Your task to perform on an android device: toggle priority inbox in the gmail app Image 0: 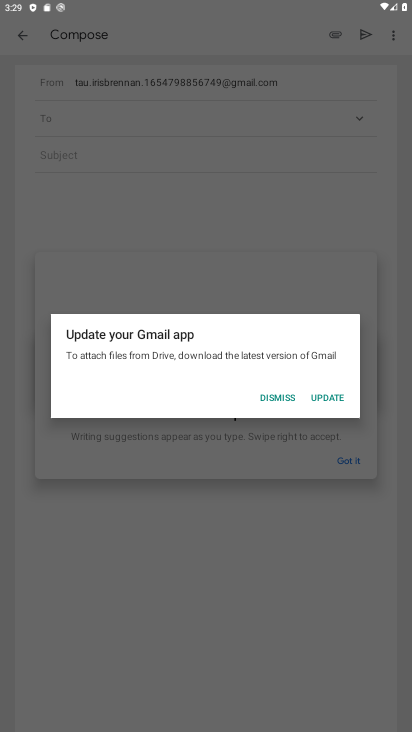
Step 0: press home button
Your task to perform on an android device: toggle priority inbox in the gmail app Image 1: 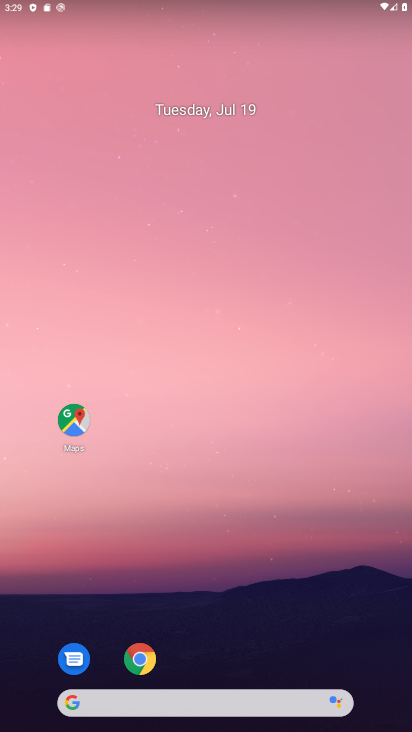
Step 1: drag from (274, 628) to (230, 15)
Your task to perform on an android device: toggle priority inbox in the gmail app Image 2: 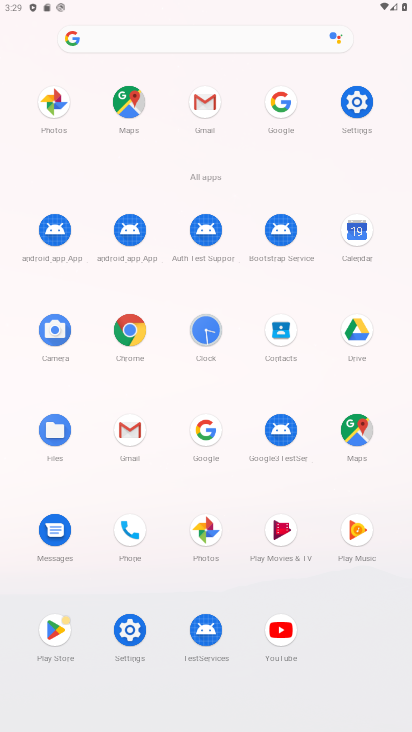
Step 2: click (222, 100)
Your task to perform on an android device: toggle priority inbox in the gmail app Image 3: 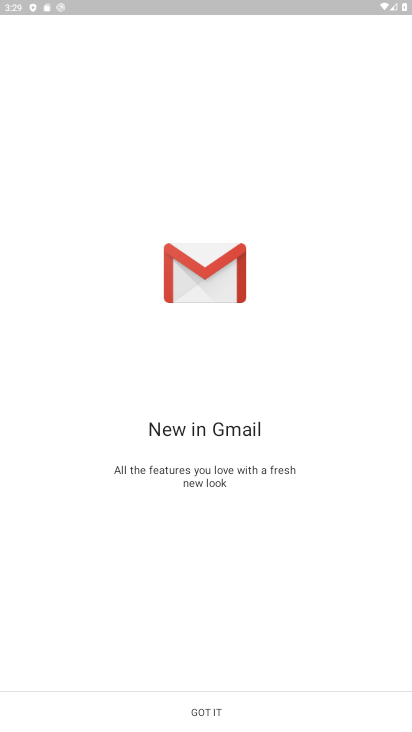
Step 3: click (193, 715)
Your task to perform on an android device: toggle priority inbox in the gmail app Image 4: 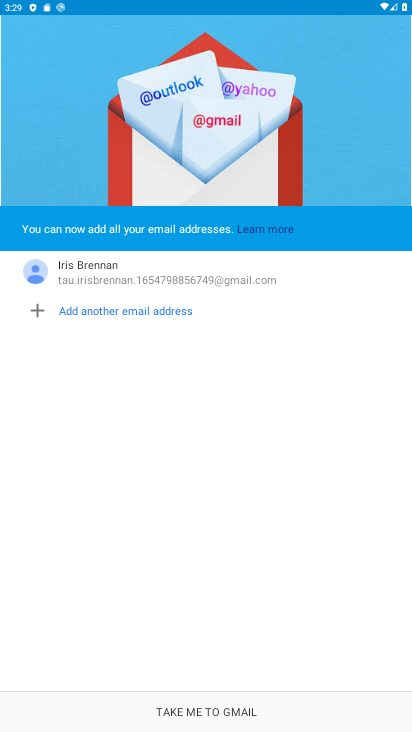
Step 4: click (193, 715)
Your task to perform on an android device: toggle priority inbox in the gmail app Image 5: 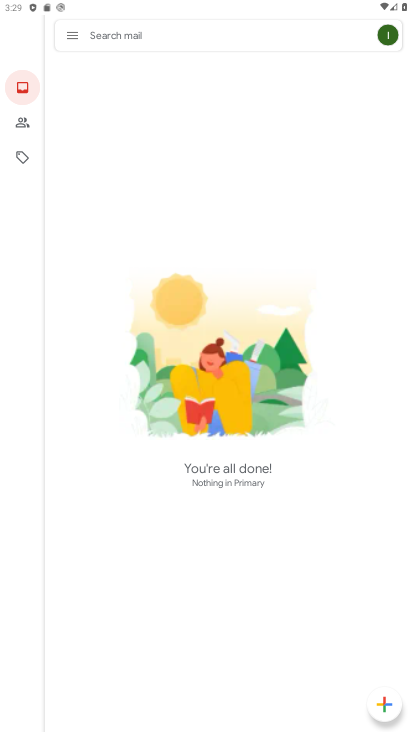
Step 5: click (77, 38)
Your task to perform on an android device: toggle priority inbox in the gmail app Image 6: 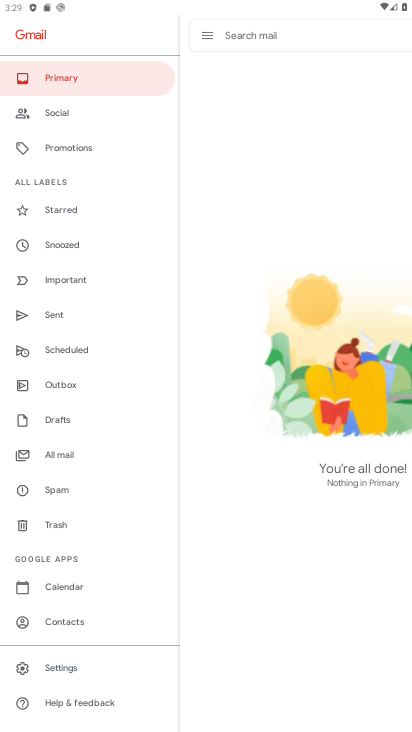
Step 6: drag from (105, 544) to (40, 61)
Your task to perform on an android device: toggle priority inbox in the gmail app Image 7: 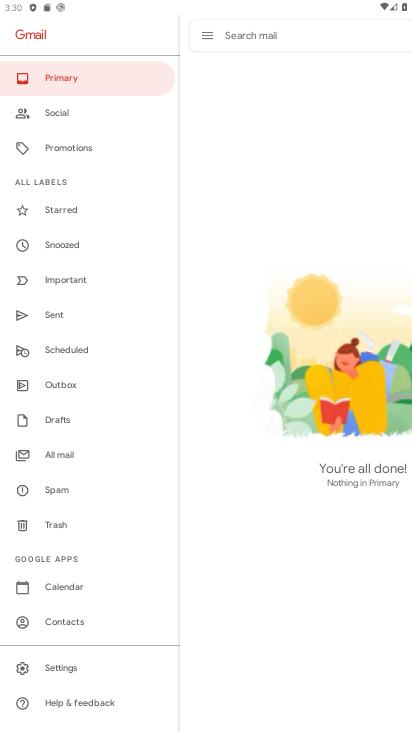
Step 7: click (76, 673)
Your task to perform on an android device: toggle priority inbox in the gmail app Image 8: 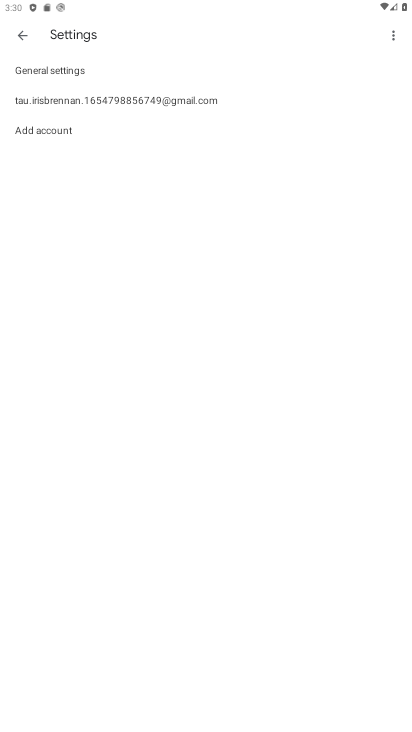
Step 8: click (153, 97)
Your task to perform on an android device: toggle priority inbox in the gmail app Image 9: 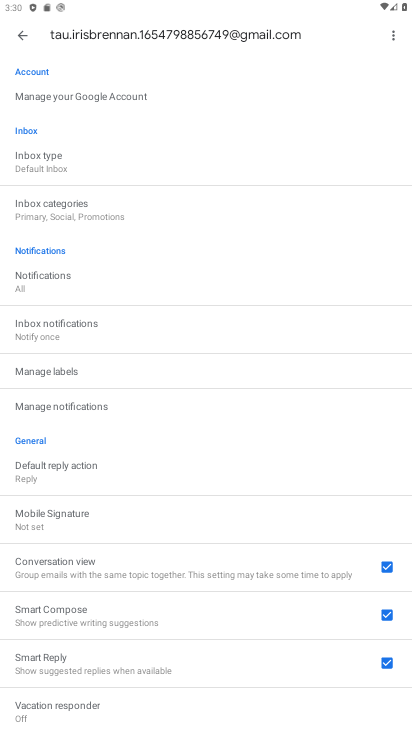
Step 9: click (56, 160)
Your task to perform on an android device: toggle priority inbox in the gmail app Image 10: 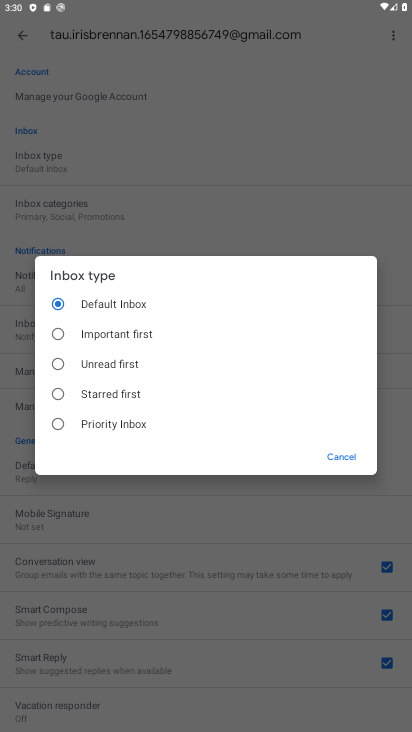
Step 10: click (77, 435)
Your task to perform on an android device: toggle priority inbox in the gmail app Image 11: 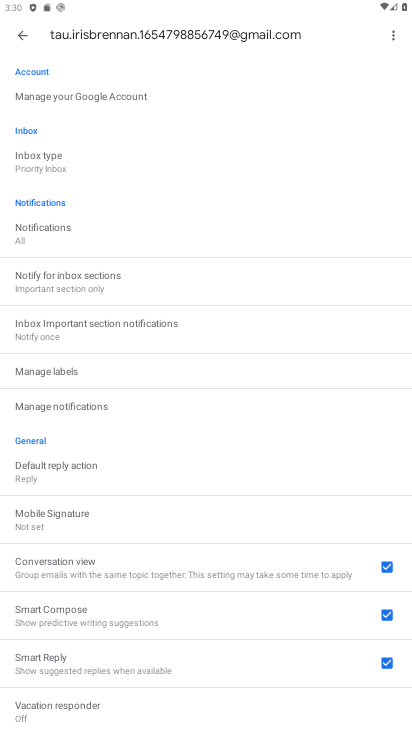
Step 11: task complete